Your task to perform on an android device: set default search engine in the chrome app Image 0: 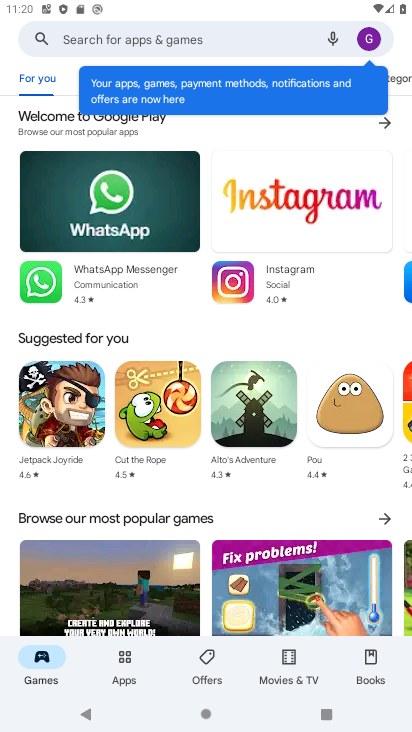
Step 0: press home button
Your task to perform on an android device: set default search engine in the chrome app Image 1: 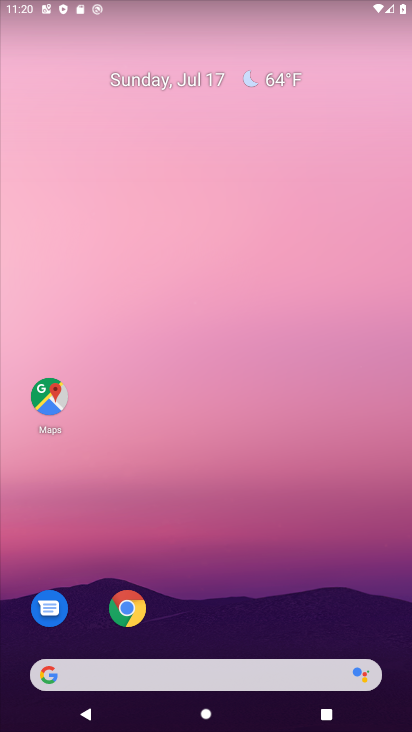
Step 1: drag from (361, 587) to (215, 25)
Your task to perform on an android device: set default search engine in the chrome app Image 2: 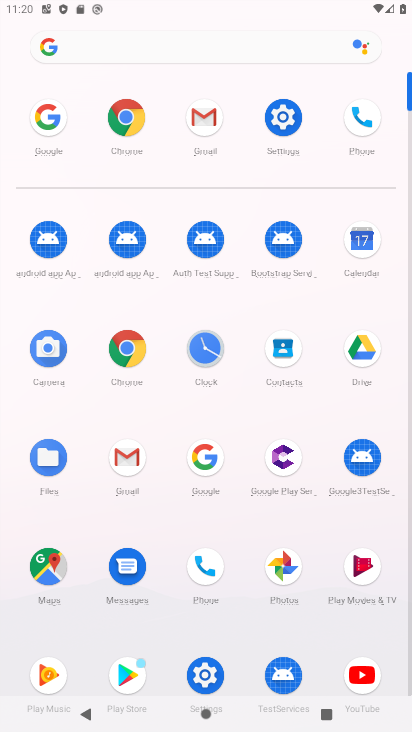
Step 2: click (120, 124)
Your task to perform on an android device: set default search engine in the chrome app Image 3: 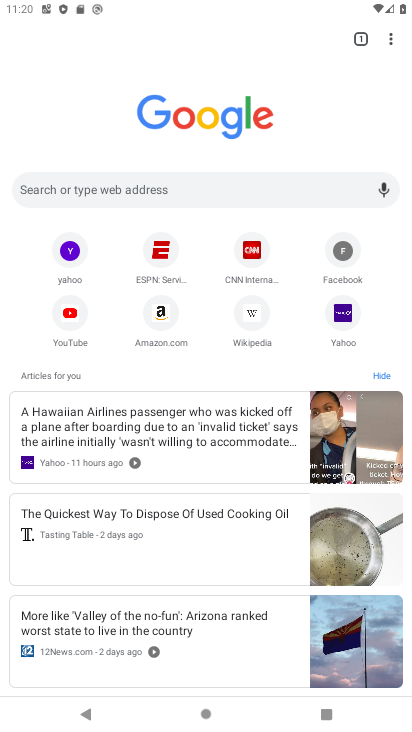
Step 3: click (391, 37)
Your task to perform on an android device: set default search engine in the chrome app Image 4: 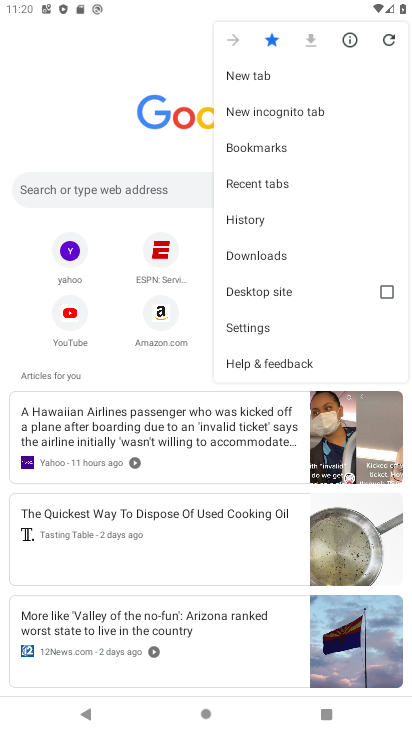
Step 4: click (243, 338)
Your task to perform on an android device: set default search engine in the chrome app Image 5: 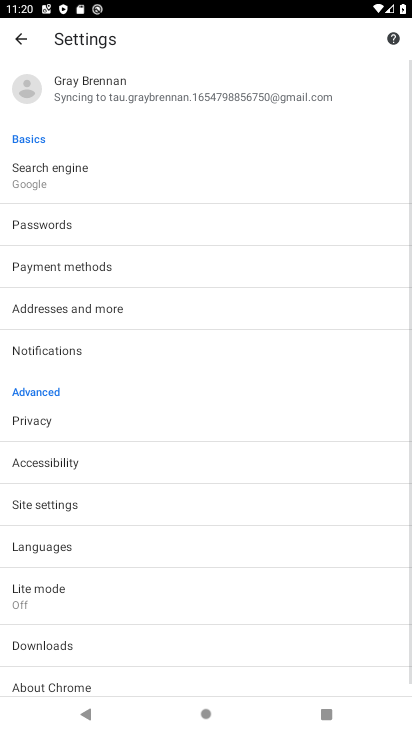
Step 5: click (47, 172)
Your task to perform on an android device: set default search engine in the chrome app Image 6: 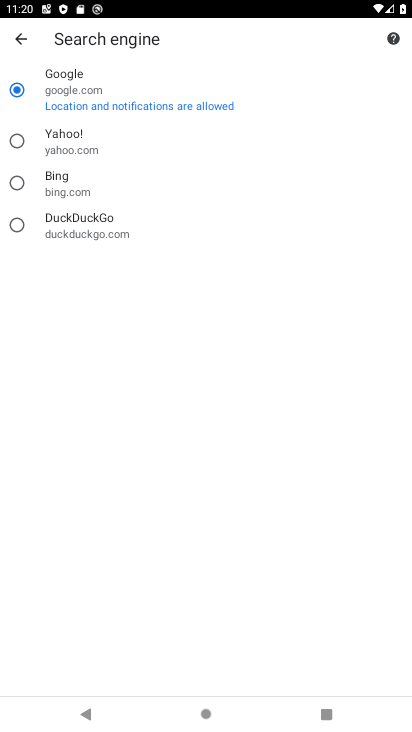
Step 6: click (63, 188)
Your task to perform on an android device: set default search engine in the chrome app Image 7: 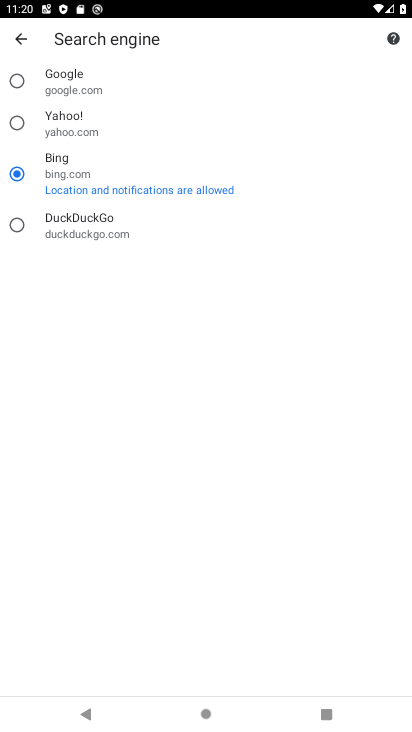
Step 7: task complete